Your task to perform on an android device: Look up the top rated headphones on Amazon. Image 0: 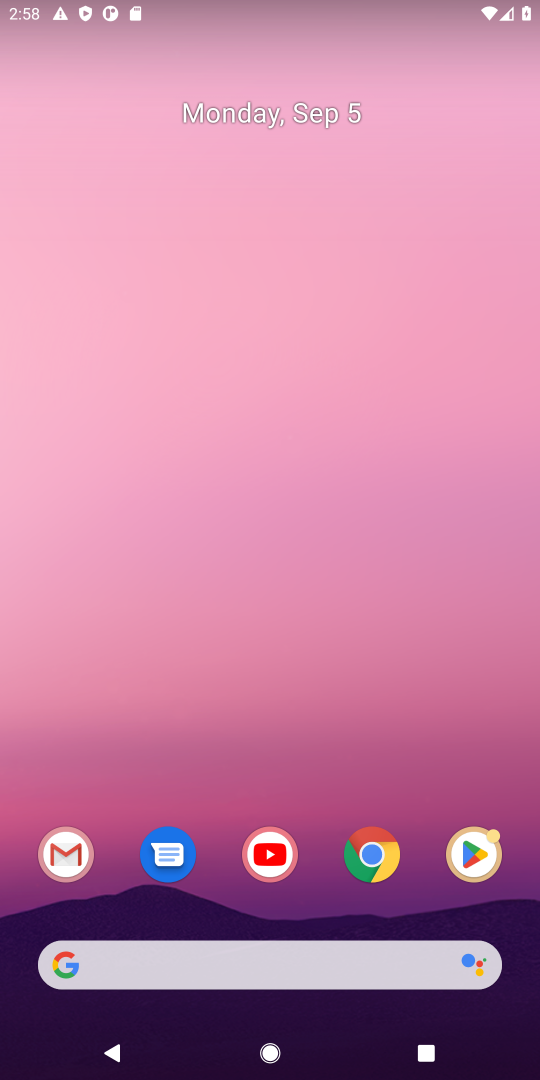
Step 0: click (398, 953)
Your task to perform on an android device: Look up the top rated headphones on Amazon. Image 1: 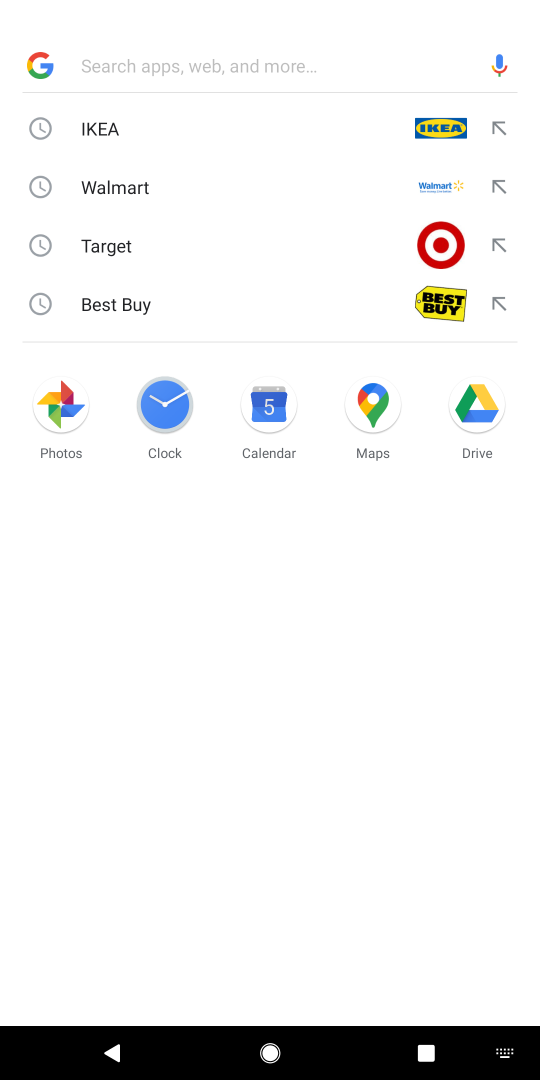
Step 1: type "amazon "
Your task to perform on an android device: Look up the top rated headphones on Amazon. Image 2: 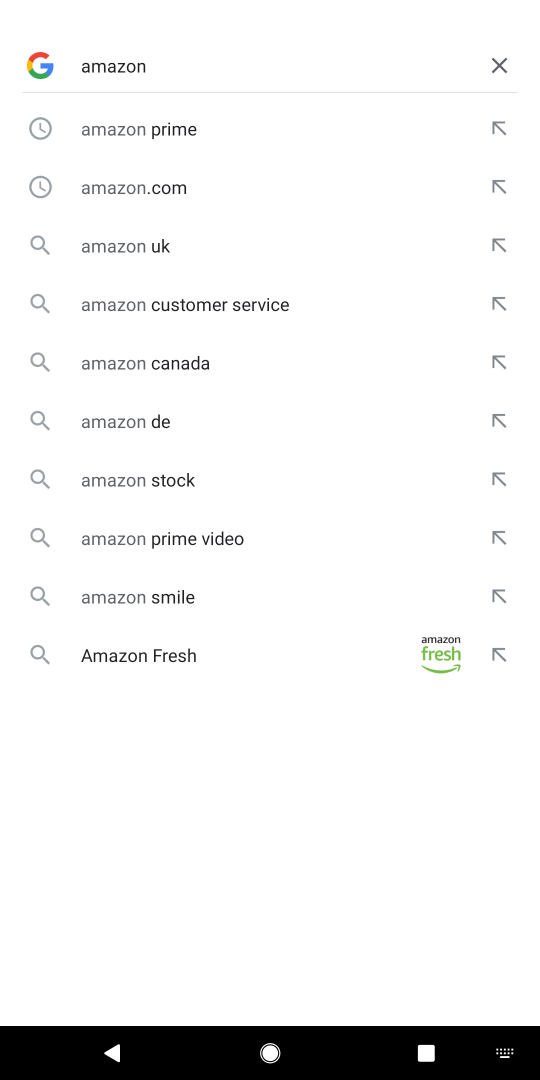
Step 2: press enter
Your task to perform on an android device: Look up the top rated headphones on Amazon. Image 3: 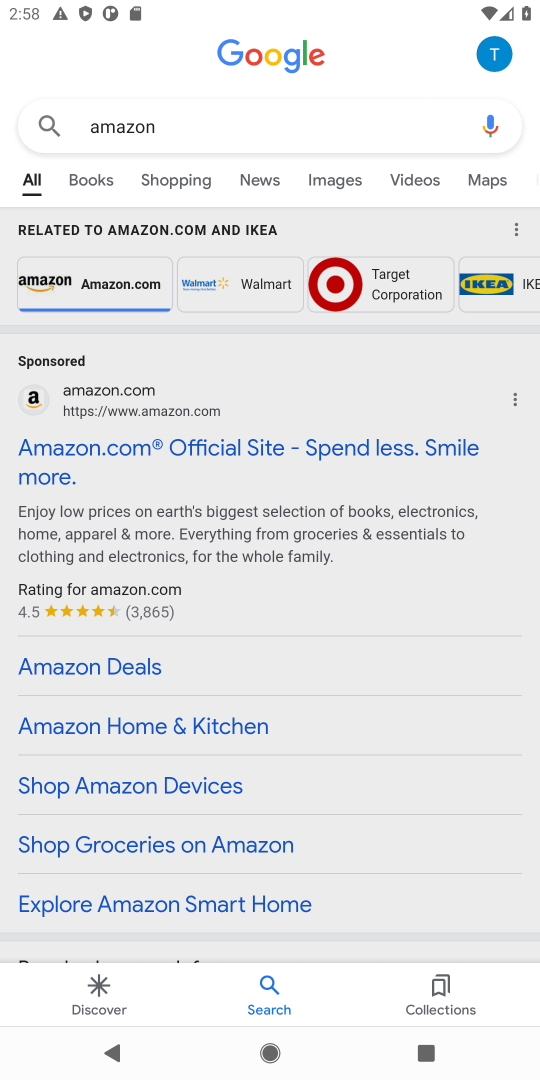
Step 3: click (285, 459)
Your task to perform on an android device: Look up the top rated headphones on Amazon. Image 4: 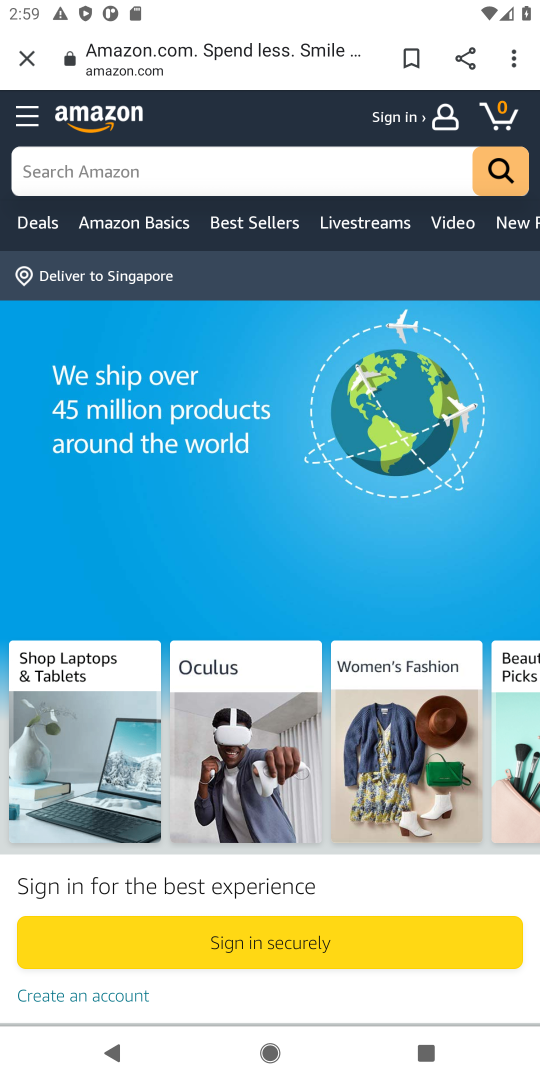
Step 4: click (204, 167)
Your task to perform on an android device: Look up the top rated headphones on Amazon. Image 5: 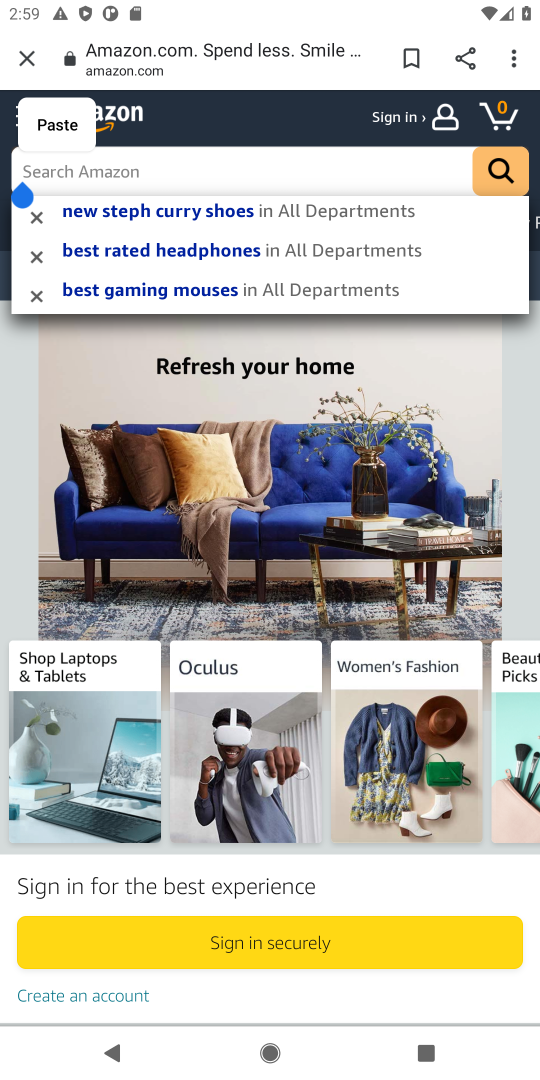
Step 5: type "top rated headphones"
Your task to perform on an android device: Look up the top rated headphones on Amazon. Image 6: 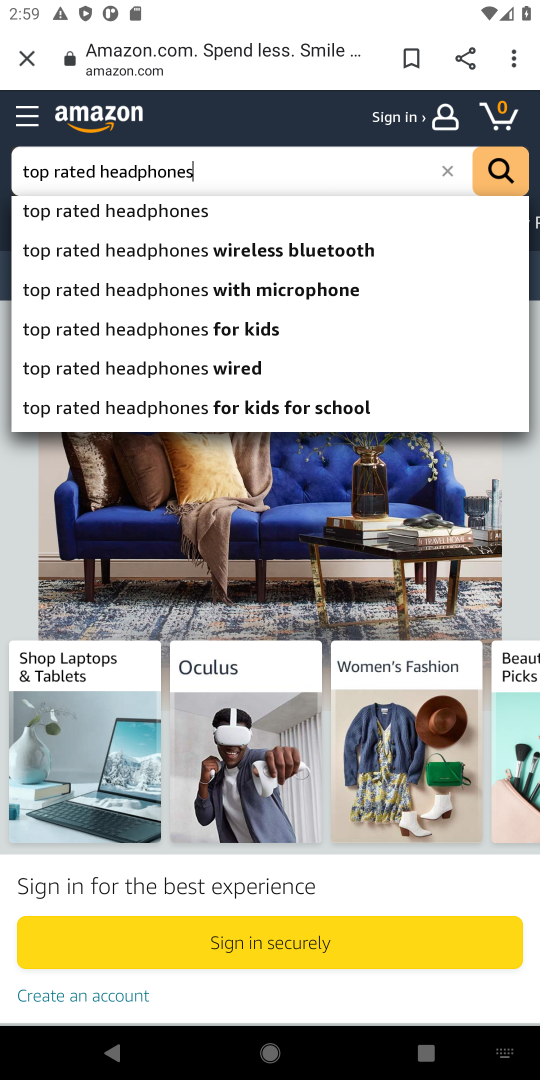
Step 6: click (185, 210)
Your task to perform on an android device: Look up the top rated headphones on Amazon. Image 7: 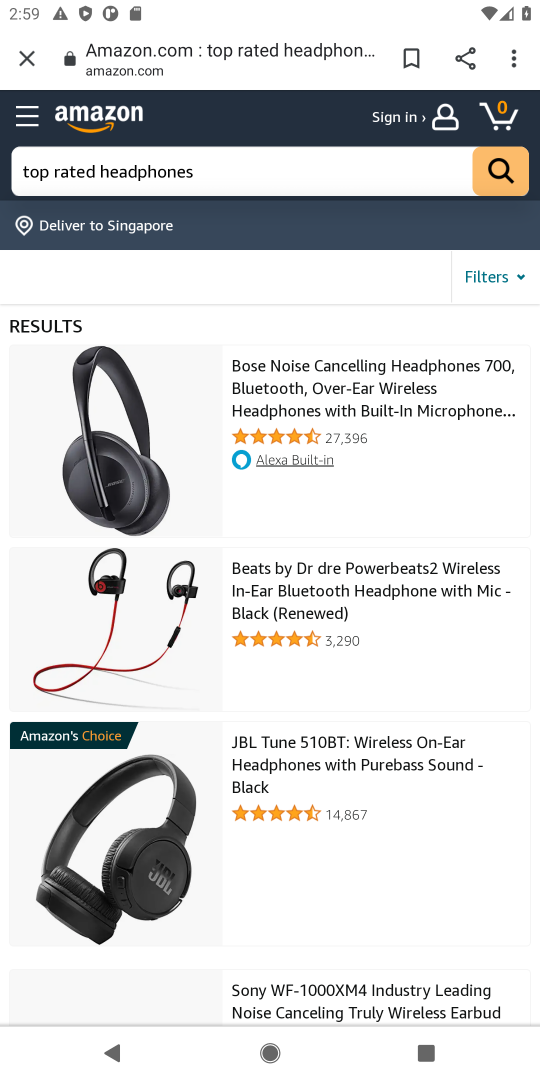
Step 7: task complete